Your task to perform on an android device: Go to network settings Image 0: 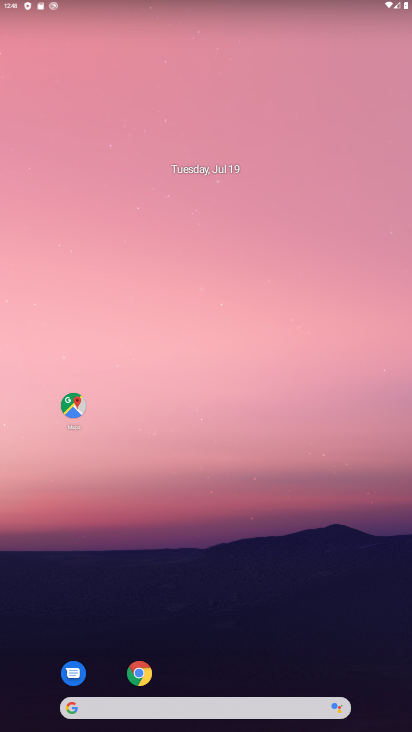
Step 0: click (214, 15)
Your task to perform on an android device: Go to network settings Image 1: 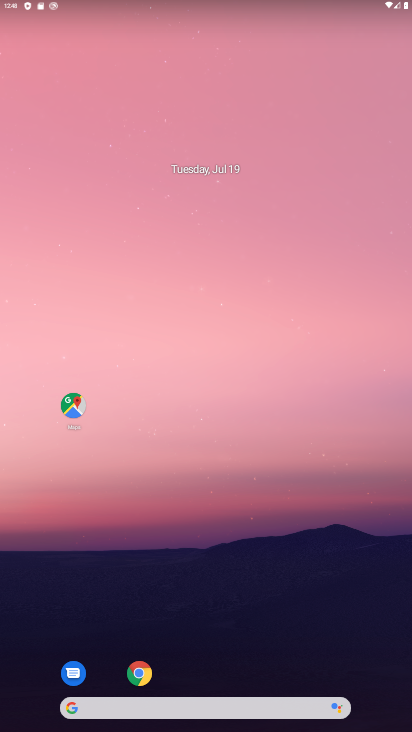
Step 1: drag from (196, 687) to (160, 92)
Your task to perform on an android device: Go to network settings Image 2: 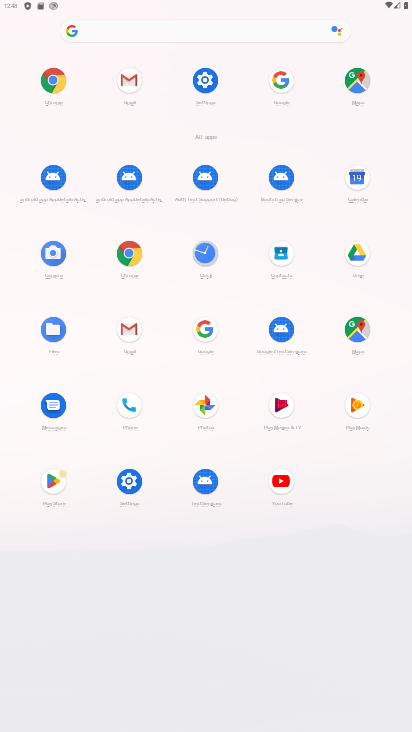
Step 2: click (197, 86)
Your task to perform on an android device: Go to network settings Image 3: 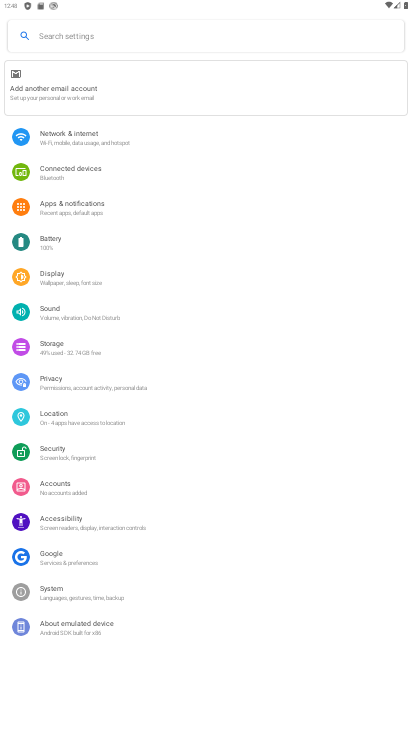
Step 3: click (66, 133)
Your task to perform on an android device: Go to network settings Image 4: 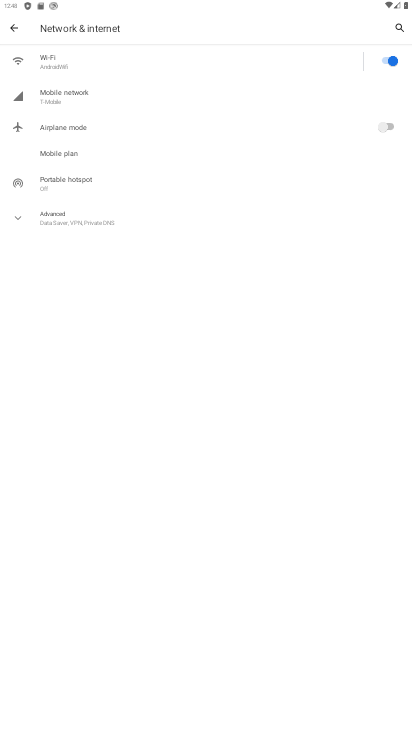
Step 4: task complete